Your task to perform on an android device: Open Android settings Image 0: 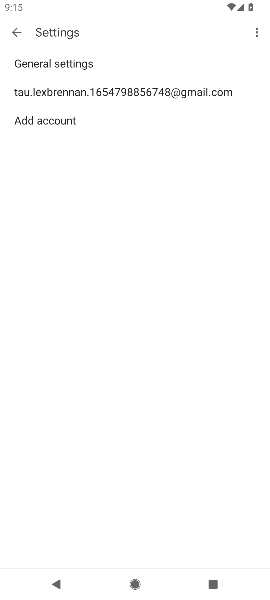
Step 0: press home button
Your task to perform on an android device: Open Android settings Image 1: 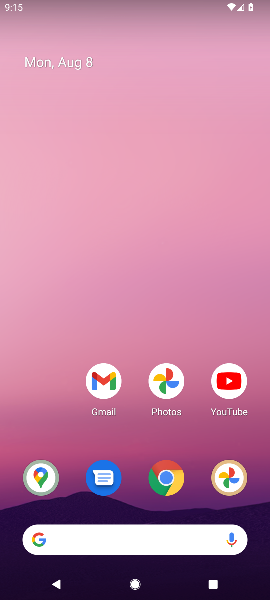
Step 1: drag from (137, 543) to (225, 115)
Your task to perform on an android device: Open Android settings Image 2: 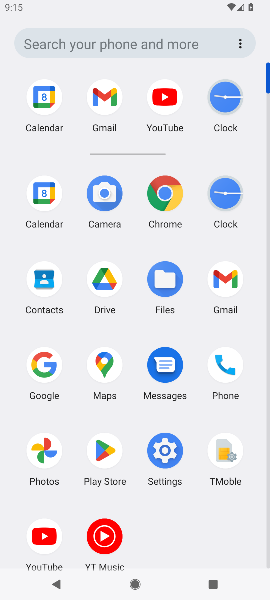
Step 2: click (174, 451)
Your task to perform on an android device: Open Android settings Image 3: 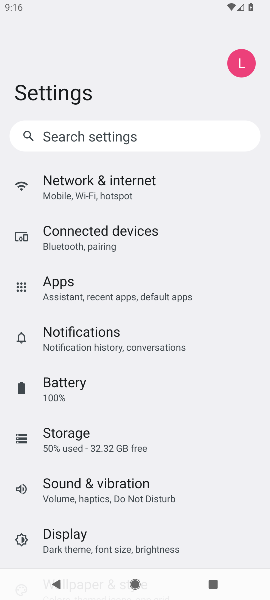
Step 3: task complete